Your task to perform on an android device: Open Google Maps and go to "Timeline" Image 0: 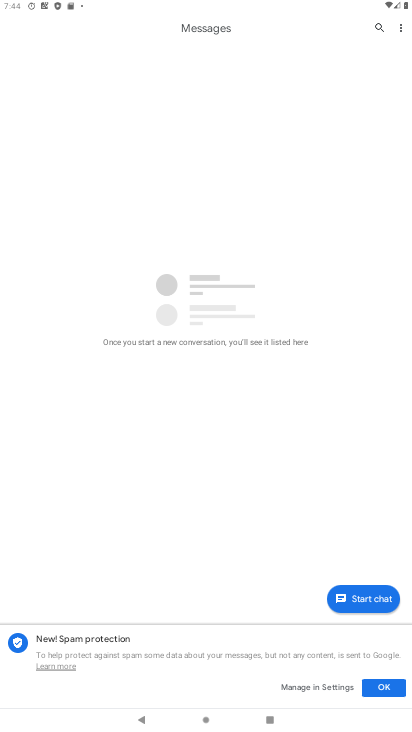
Step 0: press home button
Your task to perform on an android device: Open Google Maps and go to "Timeline" Image 1: 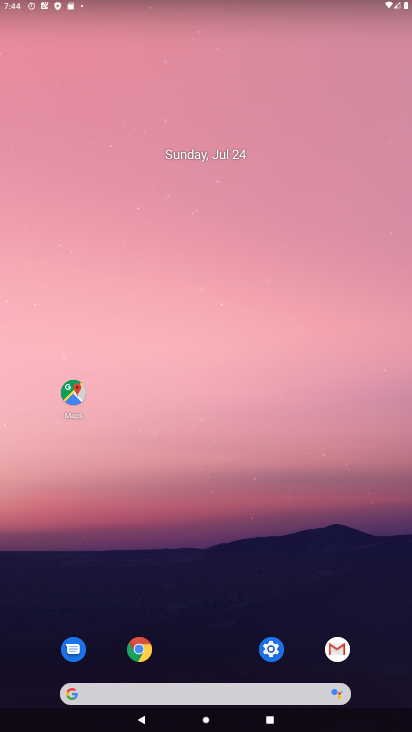
Step 1: click (54, 395)
Your task to perform on an android device: Open Google Maps and go to "Timeline" Image 2: 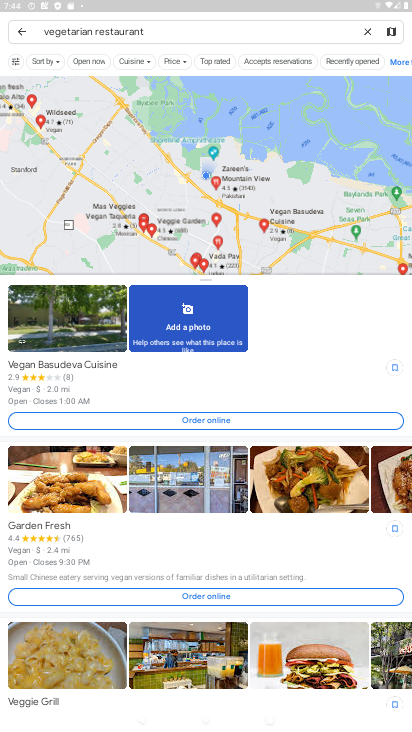
Step 2: click (21, 40)
Your task to perform on an android device: Open Google Maps and go to "Timeline" Image 3: 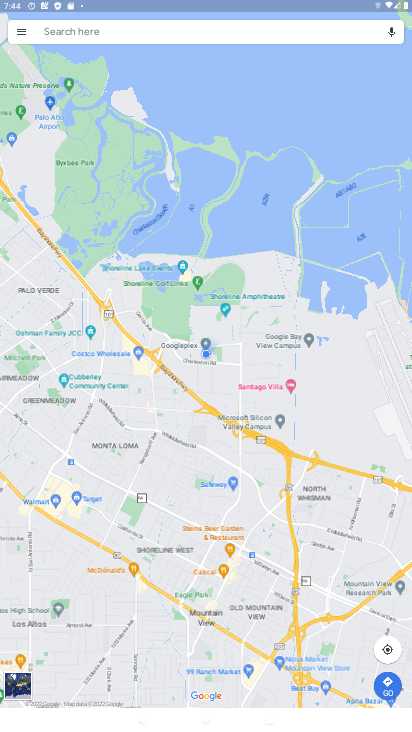
Step 3: click (21, 34)
Your task to perform on an android device: Open Google Maps and go to "Timeline" Image 4: 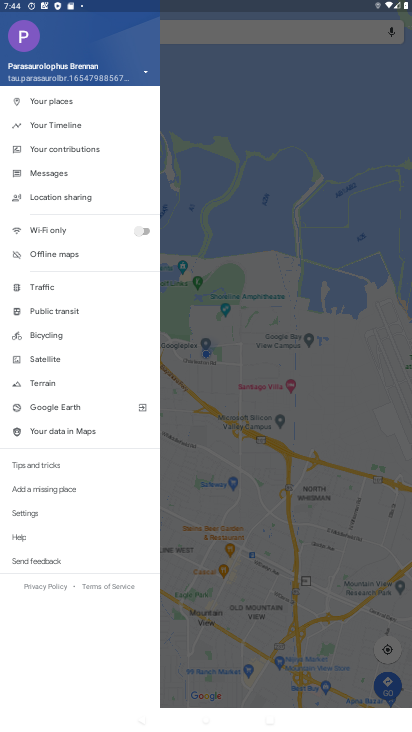
Step 4: click (66, 128)
Your task to perform on an android device: Open Google Maps and go to "Timeline" Image 5: 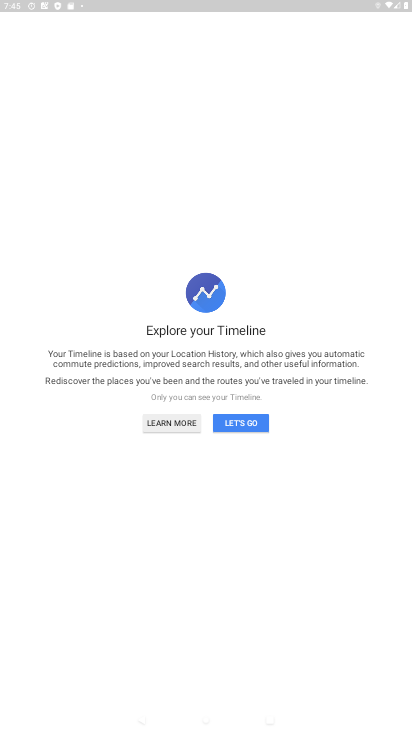
Step 5: click (228, 416)
Your task to perform on an android device: Open Google Maps and go to "Timeline" Image 6: 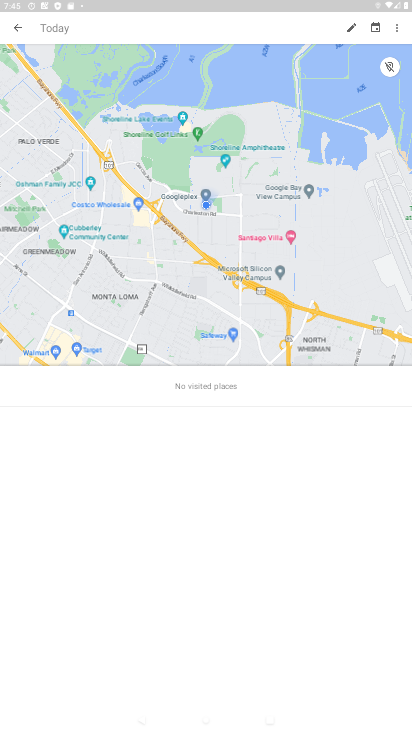
Step 6: task complete